Your task to perform on an android device: Go to network settings Image 0: 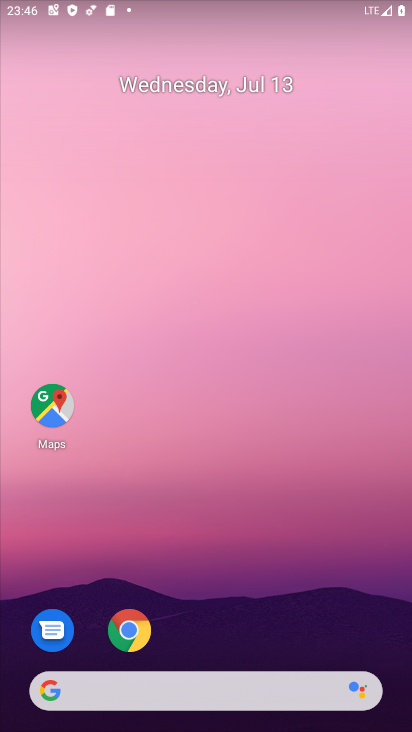
Step 0: drag from (318, 617) to (330, 148)
Your task to perform on an android device: Go to network settings Image 1: 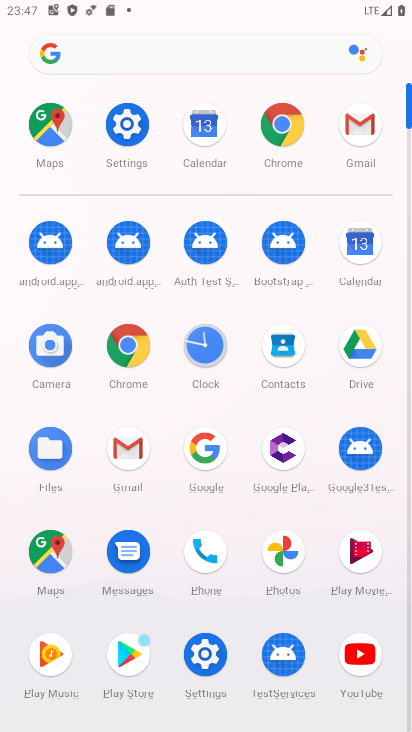
Step 1: click (202, 661)
Your task to perform on an android device: Go to network settings Image 2: 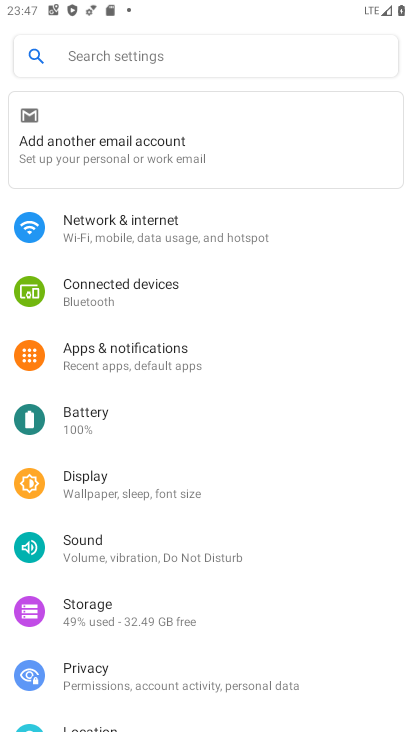
Step 2: drag from (350, 611) to (344, 464)
Your task to perform on an android device: Go to network settings Image 3: 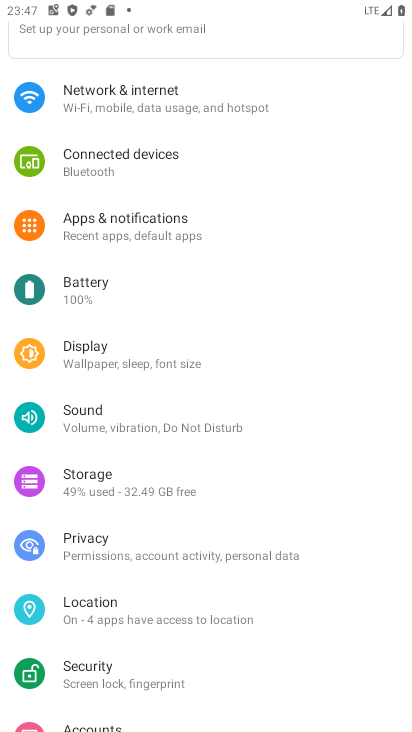
Step 3: drag from (354, 617) to (354, 526)
Your task to perform on an android device: Go to network settings Image 4: 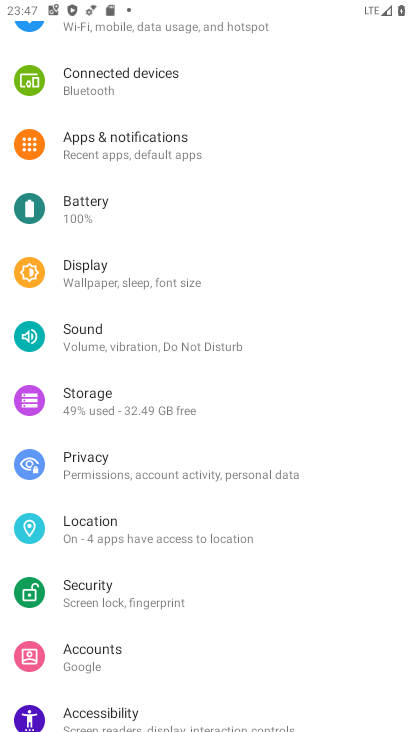
Step 4: drag from (361, 614) to (356, 506)
Your task to perform on an android device: Go to network settings Image 5: 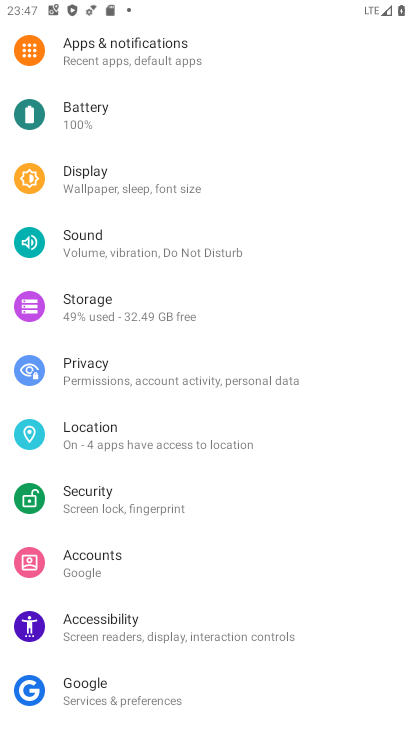
Step 5: drag from (354, 540) to (354, 414)
Your task to perform on an android device: Go to network settings Image 6: 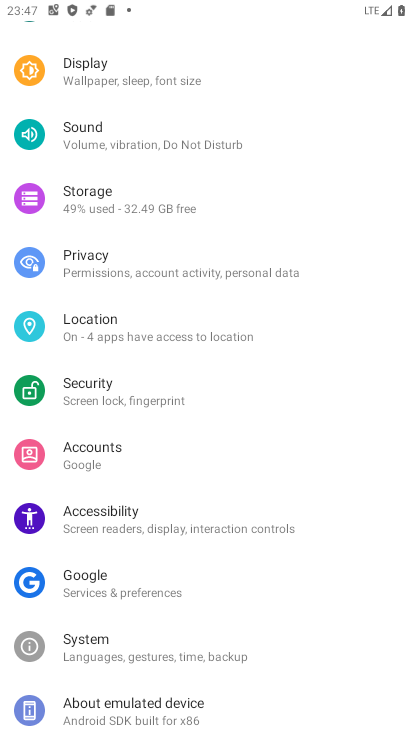
Step 6: drag from (342, 293) to (357, 435)
Your task to perform on an android device: Go to network settings Image 7: 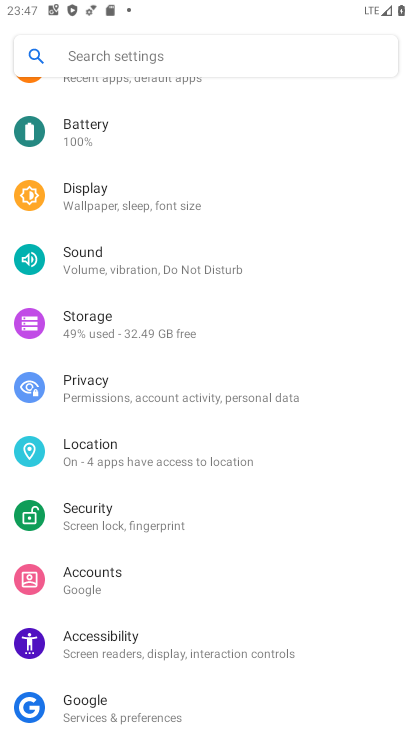
Step 7: drag from (356, 333) to (373, 444)
Your task to perform on an android device: Go to network settings Image 8: 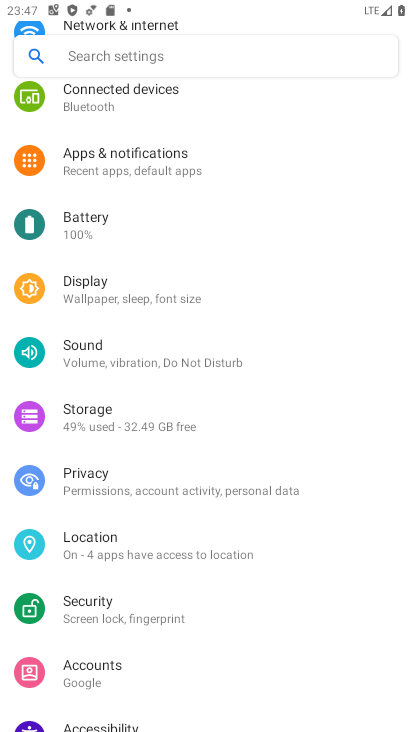
Step 8: drag from (354, 287) to (366, 435)
Your task to perform on an android device: Go to network settings Image 9: 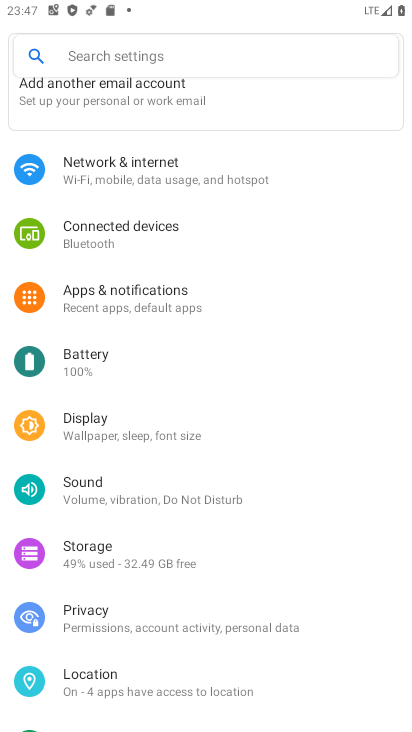
Step 9: drag from (332, 317) to (351, 432)
Your task to perform on an android device: Go to network settings Image 10: 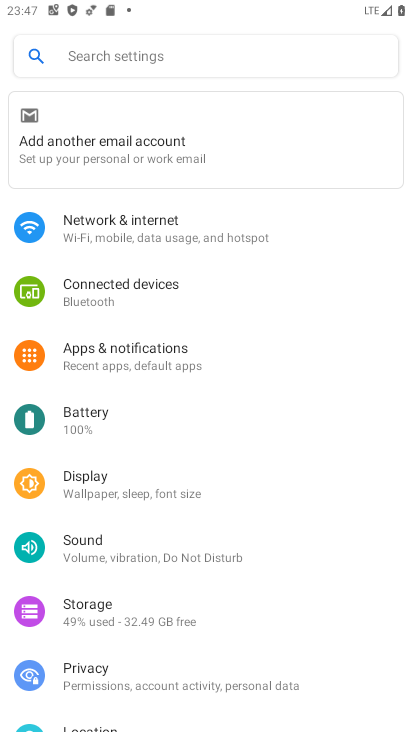
Step 10: drag from (337, 330) to (346, 457)
Your task to perform on an android device: Go to network settings Image 11: 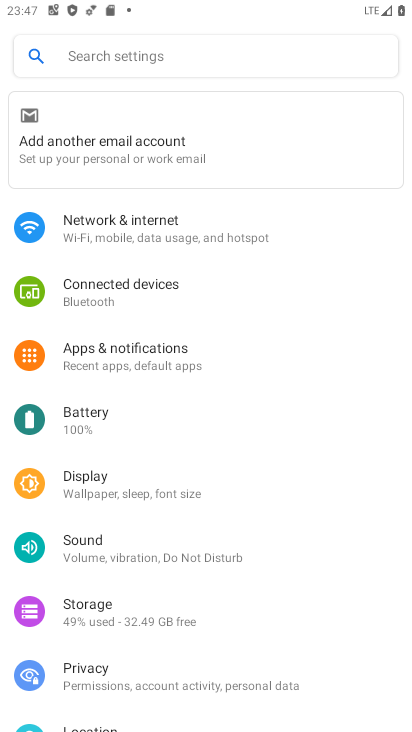
Step 11: click (213, 229)
Your task to perform on an android device: Go to network settings Image 12: 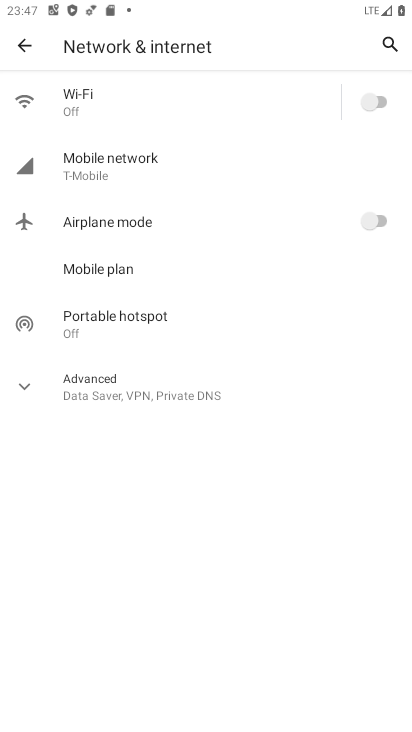
Step 12: task complete